Your task to perform on an android device: turn vacation reply on in the gmail app Image 0: 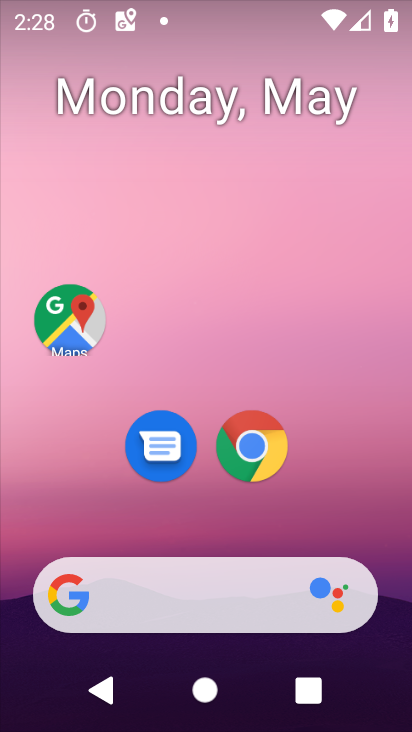
Step 0: drag from (209, 572) to (187, 153)
Your task to perform on an android device: turn vacation reply on in the gmail app Image 1: 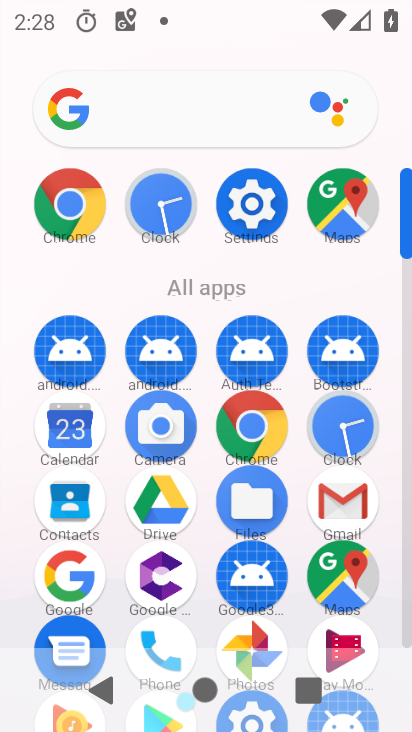
Step 1: click (325, 504)
Your task to perform on an android device: turn vacation reply on in the gmail app Image 2: 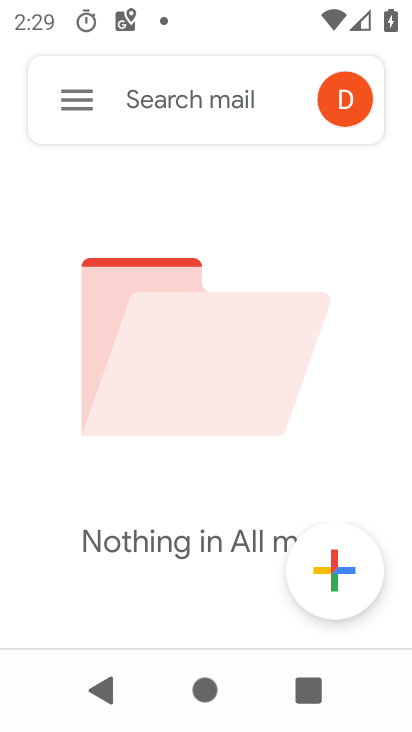
Step 2: click (69, 117)
Your task to perform on an android device: turn vacation reply on in the gmail app Image 3: 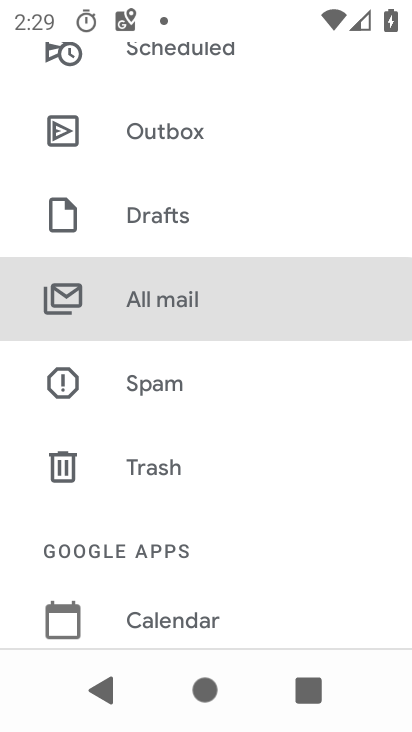
Step 3: drag from (226, 587) to (263, 274)
Your task to perform on an android device: turn vacation reply on in the gmail app Image 4: 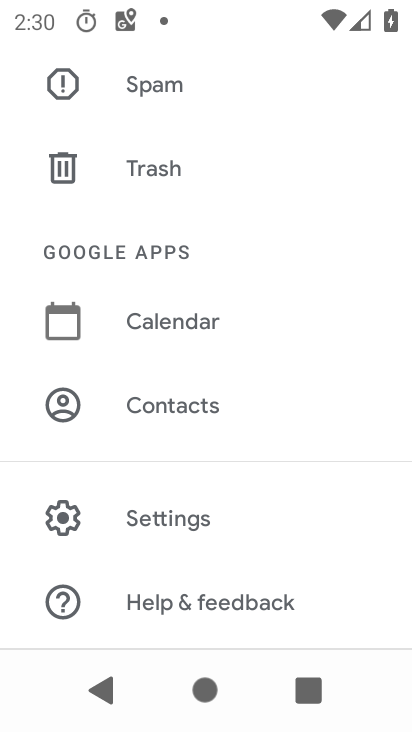
Step 4: click (174, 509)
Your task to perform on an android device: turn vacation reply on in the gmail app Image 5: 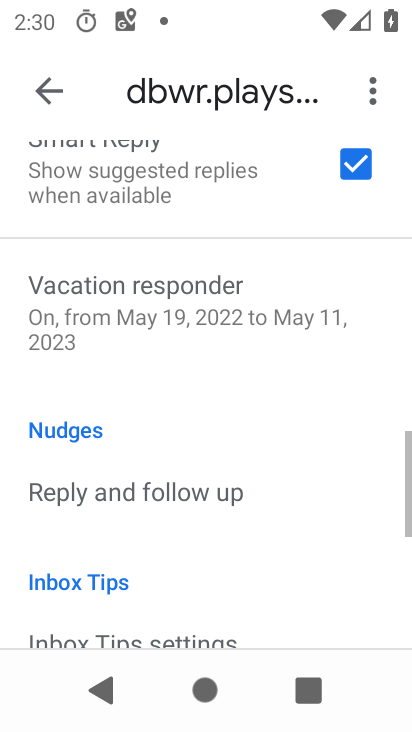
Step 5: drag from (207, 529) to (223, 334)
Your task to perform on an android device: turn vacation reply on in the gmail app Image 6: 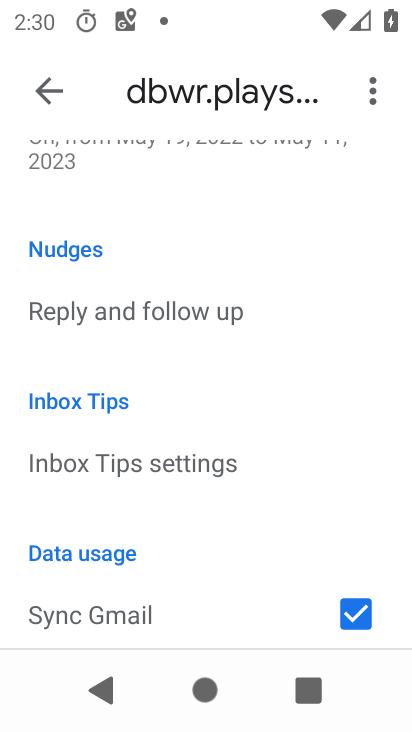
Step 6: drag from (181, 526) to (200, 82)
Your task to perform on an android device: turn vacation reply on in the gmail app Image 7: 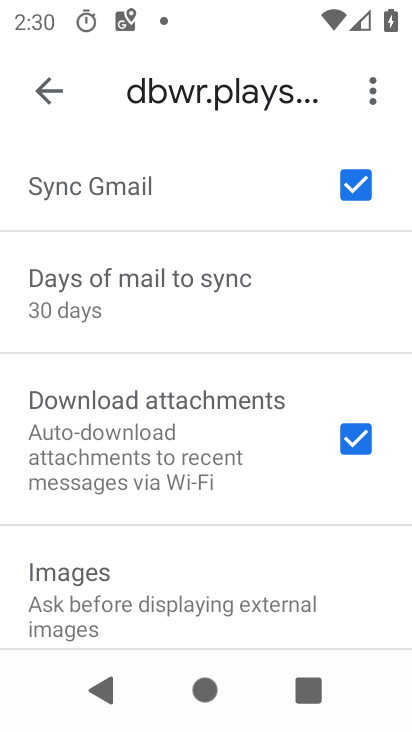
Step 7: drag from (222, 245) to (263, 704)
Your task to perform on an android device: turn vacation reply on in the gmail app Image 8: 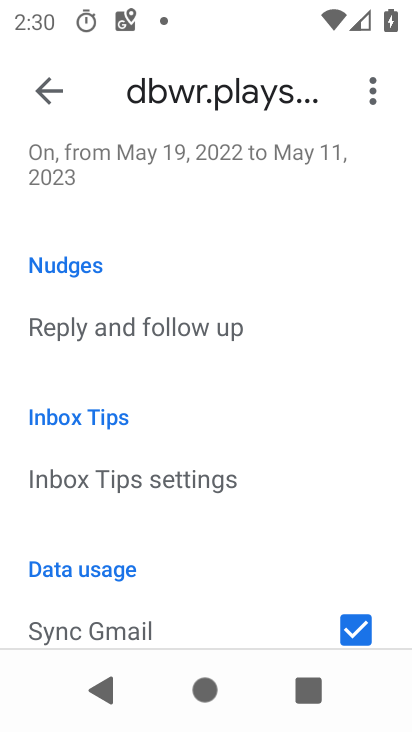
Step 8: click (180, 157)
Your task to perform on an android device: turn vacation reply on in the gmail app Image 9: 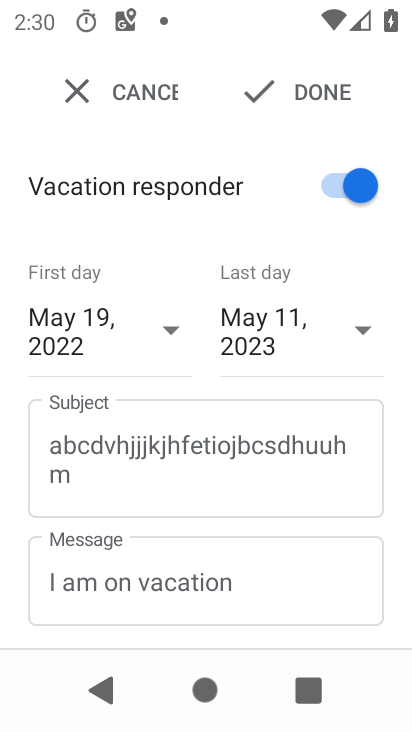
Step 9: click (297, 101)
Your task to perform on an android device: turn vacation reply on in the gmail app Image 10: 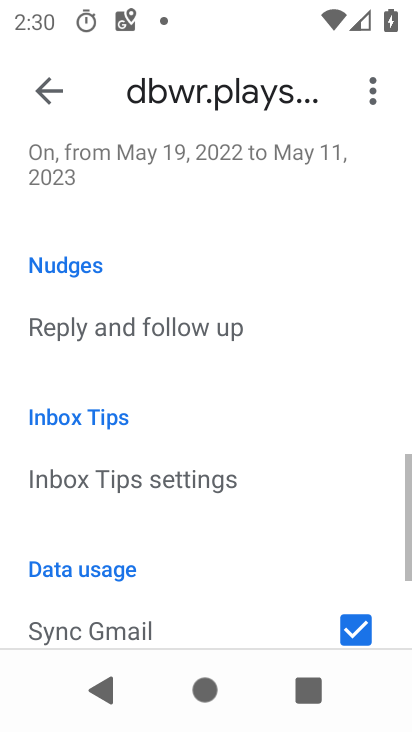
Step 10: task complete